Your task to perform on an android device: Open calendar and show me the fourth week of next month Image 0: 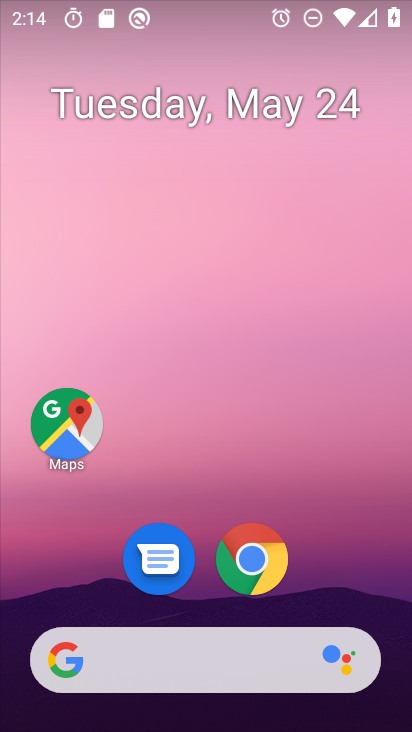
Step 0: drag from (396, 639) to (370, 122)
Your task to perform on an android device: Open calendar and show me the fourth week of next month Image 1: 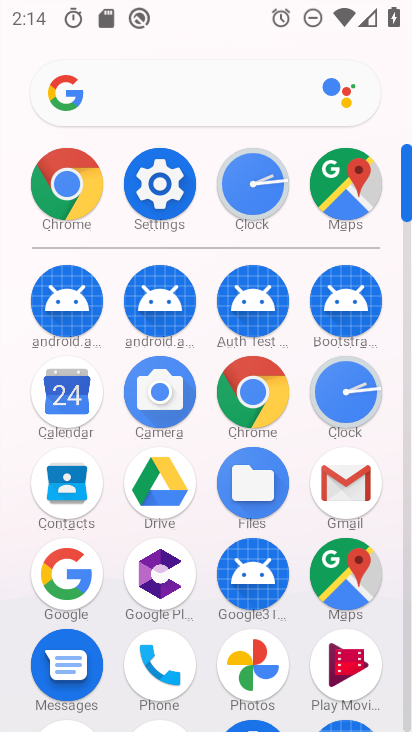
Step 1: click (66, 403)
Your task to perform on an android device: Open calendar and show me the fourth week of next month Image 2: 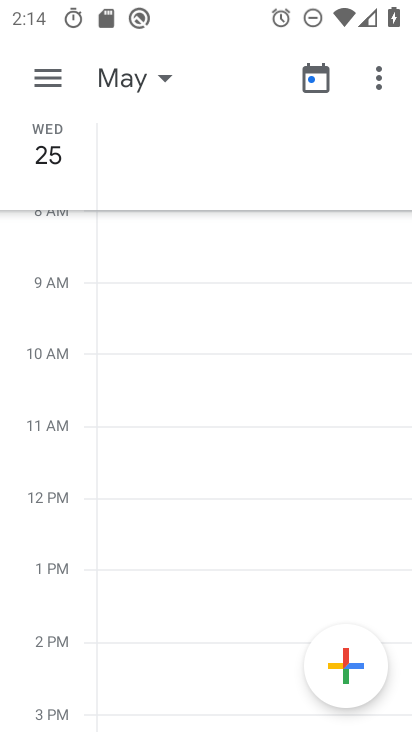
Step 2: click (162, 78)
Your task to perform on an android device: Open calendar and show me the fourth week of next month Image 3: 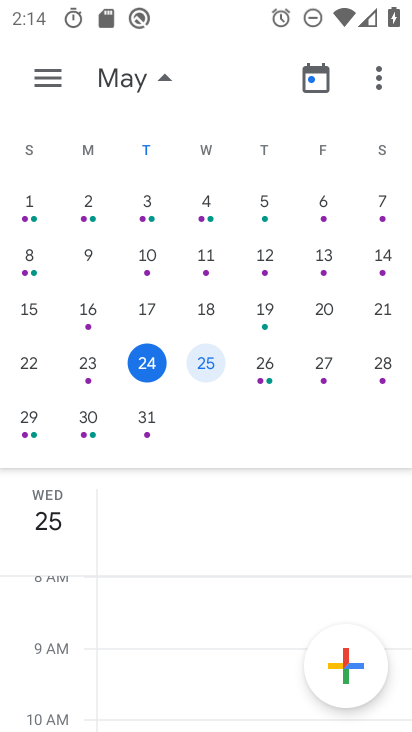
Step 3: drag from (403, 269) to (85, 238)
Your task to perform on an android device: Open calendar and show me the fourth week of next month Image 4: 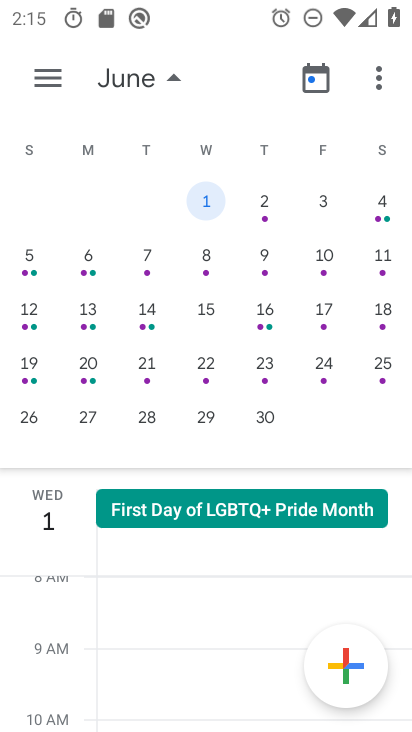
Step 4: click (210, 364)
Your task to perform on an android device: Open calendar and show me the fourth week of next month Image 5: 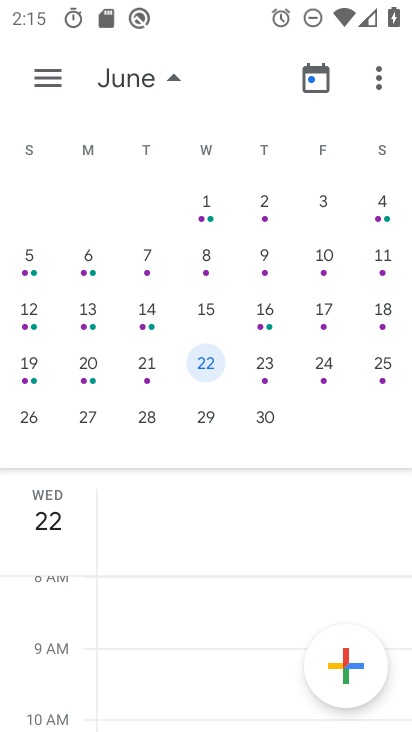
Step 5: click (49, 85)
Your task to perform on an android device: Open calendar and show me the fourth week of next month Image 6: 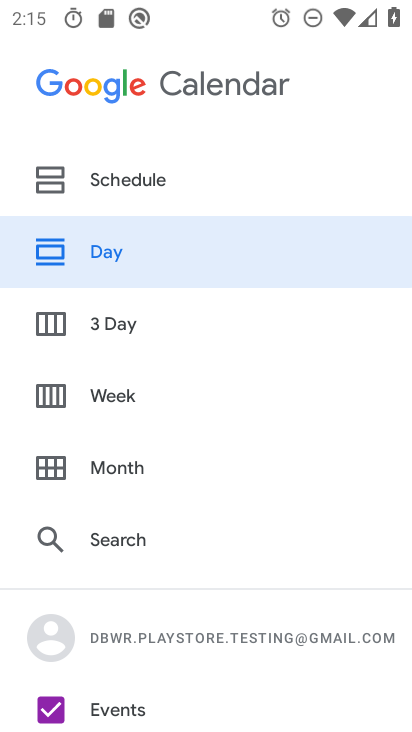
Step 6: click (91, 397)
Your task to perform on an android device: Open calendar and show me the fourth week of next month Image 7: 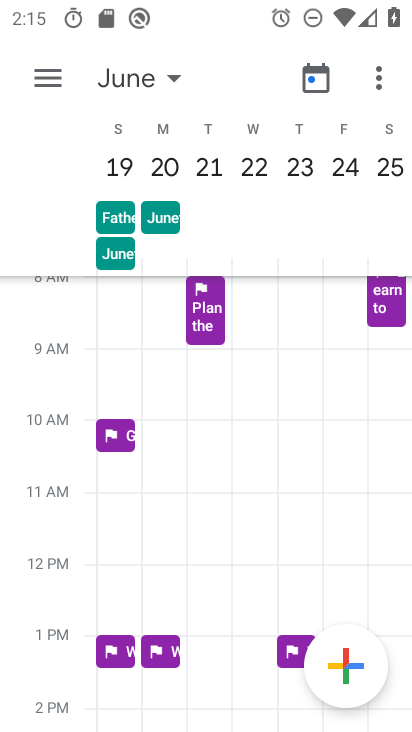
Step 7: task complete